Your task to perform on an android device: Open display settings Image 0: 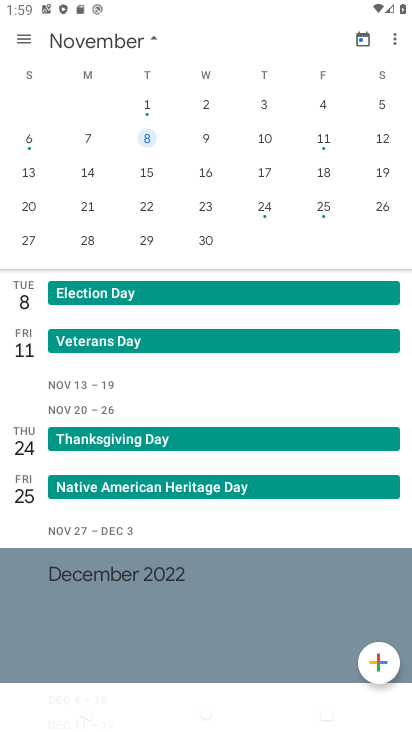
Step 0: press home button
Your task to perform on an android device: Open display settings Image 1: 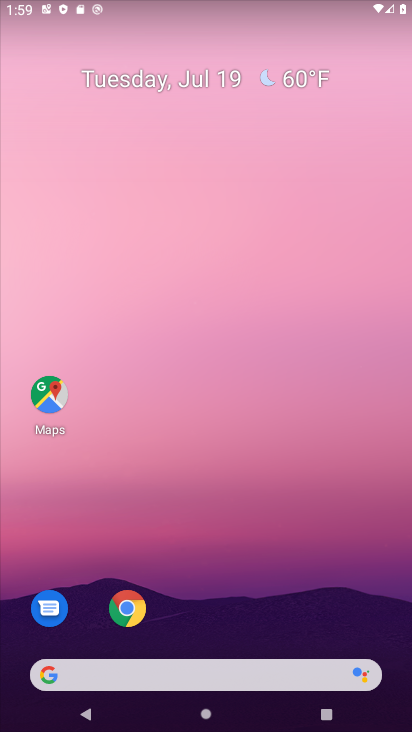
Step 1: drag from (325, 589) to (306, 15)
Your task to perform on an android device: Open display settings Image 2: 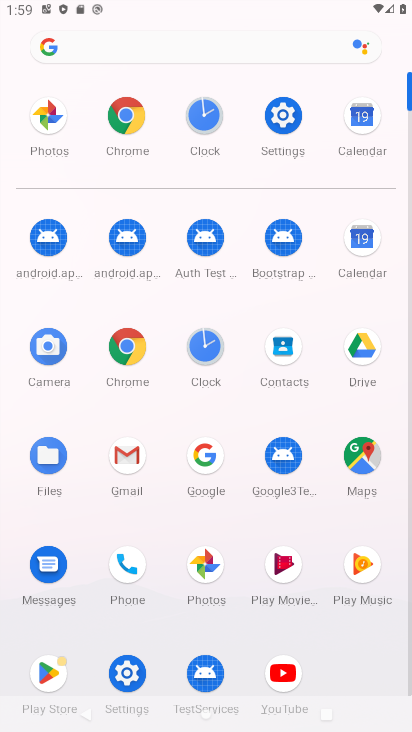
Step 2: click (278, 107)
Your task to perform on an android device: Open display settings Image 3: 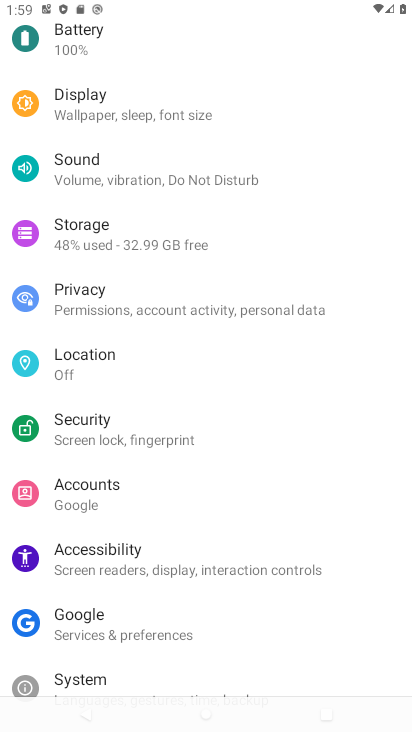
Step 3: click (114, 117)
Your task to perform on an android device: Open display settings Image 4: 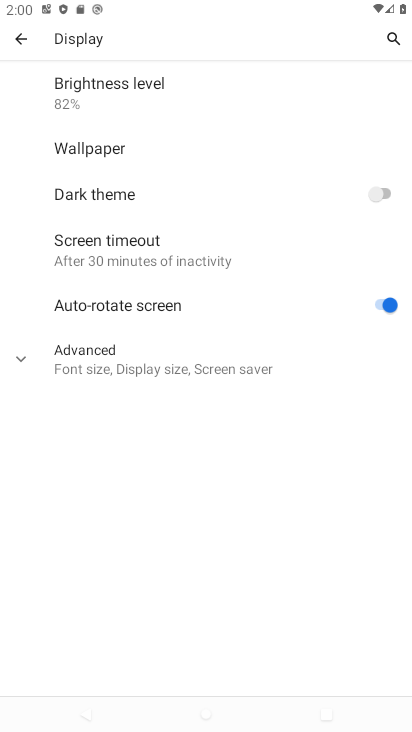
Step 4: task complete